Your task to perform on an android device: Find coffee shops on Maps Image 0: 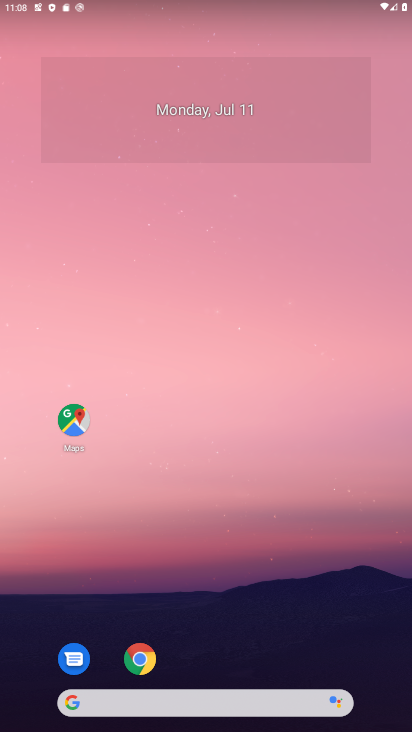
Step 0: drag from (242, 615) to (218, 24)
Your task to perform on an android device: Find coffee shops on Maps Image 1: 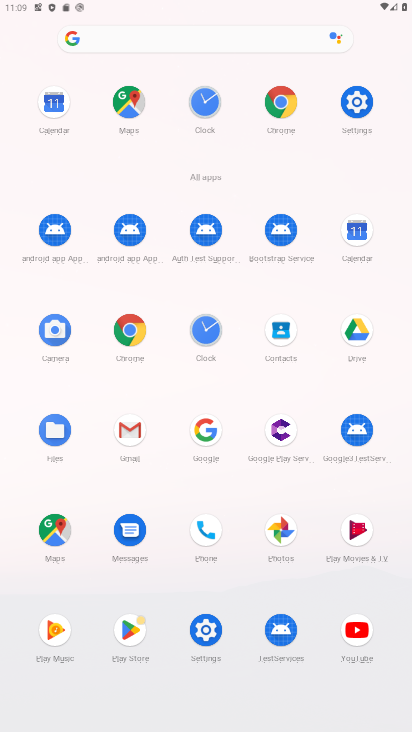
Step 1: click (55, 535)
Your task to perform on an android device: Find coffee shops on Maps Image 2: 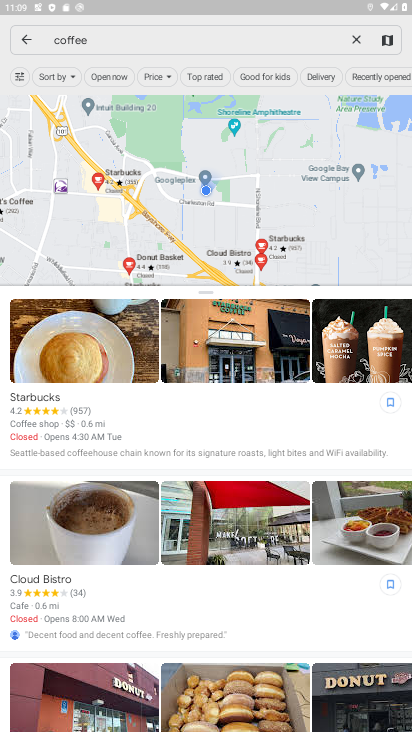
Step 2: click (195, 34)
Your task to perform on an android device: Find coffee shops on Maps Image 3: 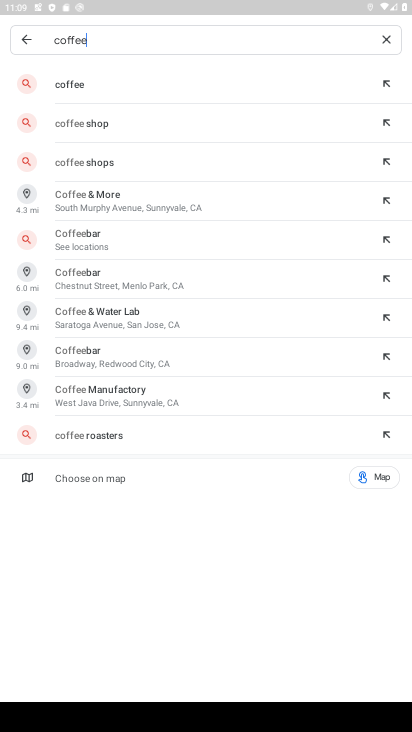
Step 3: press enter
Your task to perform on an android device: Find coffee shops on Maps Image 4: 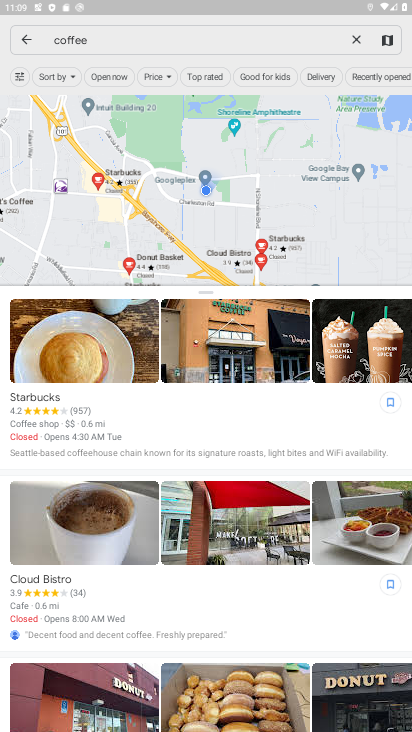
Step 4: task complete